Your task to perform on an android device: Open calendar and show me the third week of next month Image 0: 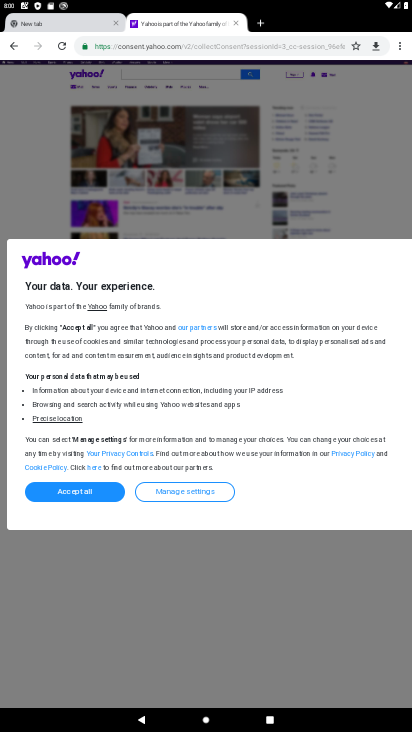
Step 0: press home button
Your task to perform on an android device: Open calendar and show me the third week of next month Image 1: 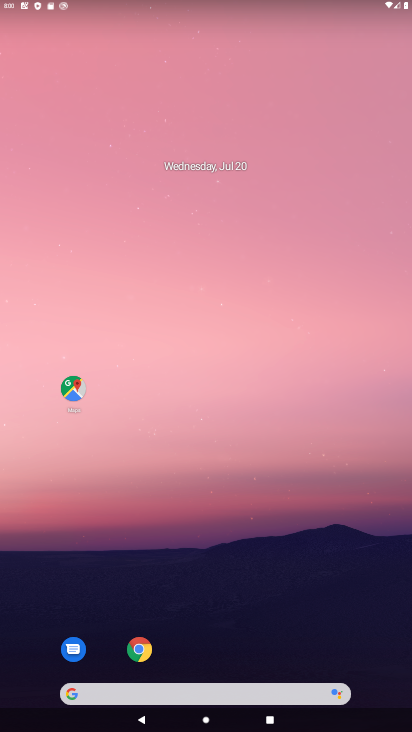
Step 1: drag from (247, 658) to (283, 199)
Your task to perform on an android device: Open calendar and show me the third week of next month Image 2: 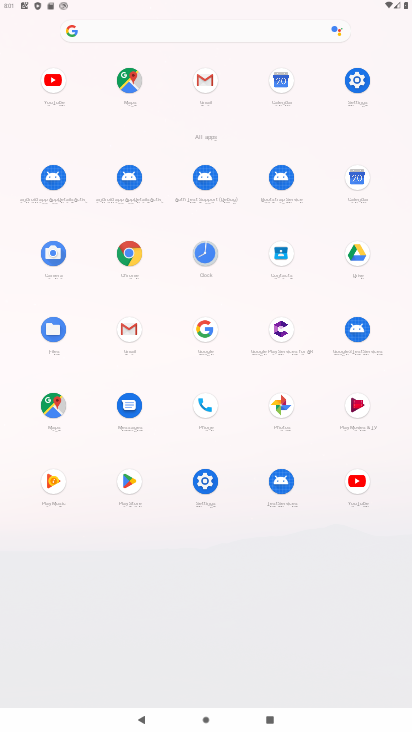
Step 2: click (292, 110)
Your task to perform on an android device: Open calendar and show me the third week of next month Image 3: 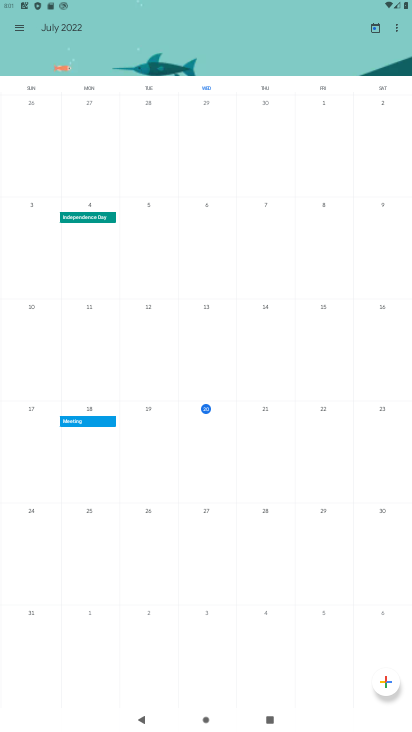
Step 3: task complete